Your task to perform on an android device: turn on the 24-hour format for clock Image 0: 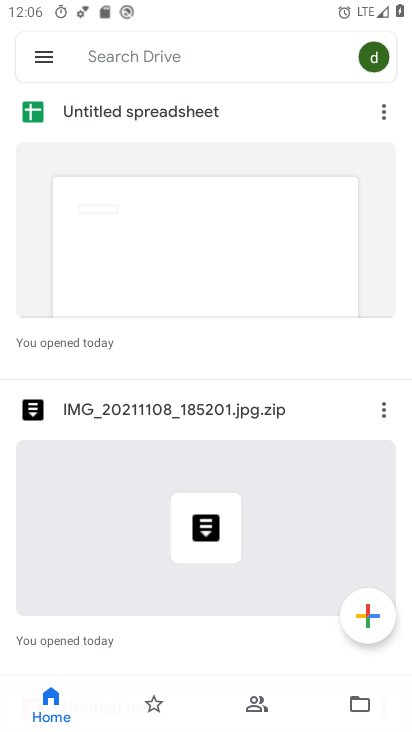
Step 0: press back button
Your task to perform on an android device: turn on the 24-hour format for clock Image 1: 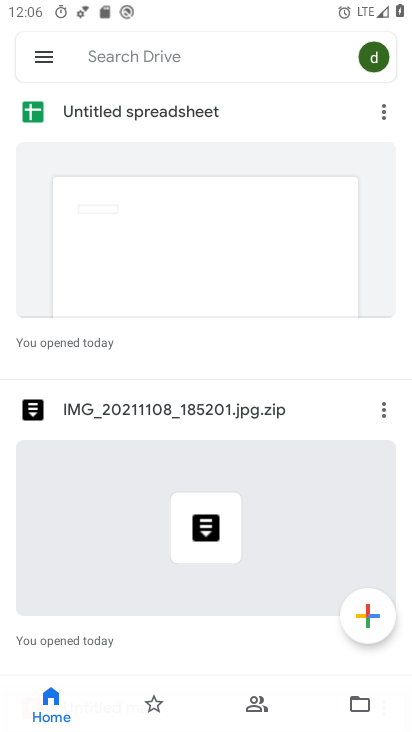
Step 1: press back button
Your task to perform on an android device: turn on the 24-hour format for clock Image 2: 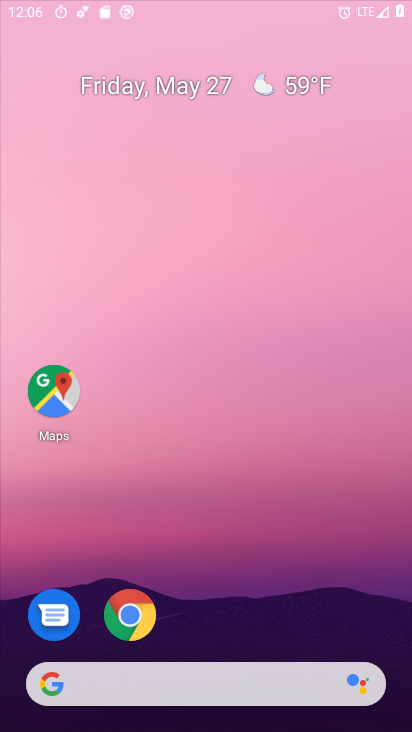
Step 2: press back button
Your task to perform on an android device: turn on the 24-hour format for clock Image 3: 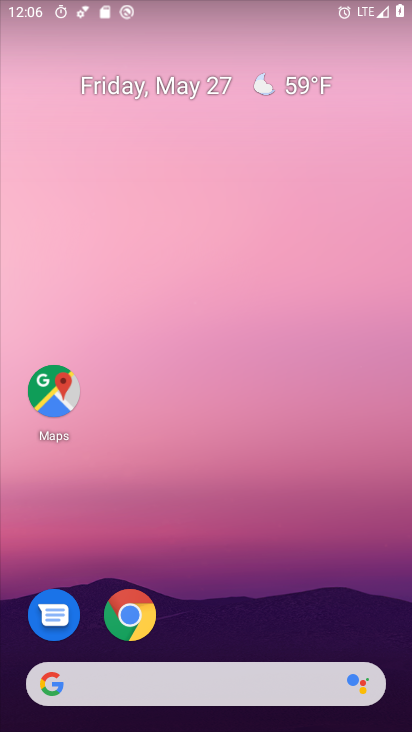
Step 3: drag from (241, 700) to (263, 175)
Your task to perform on an android device: turn on the 24-hour format for clock Image 4: 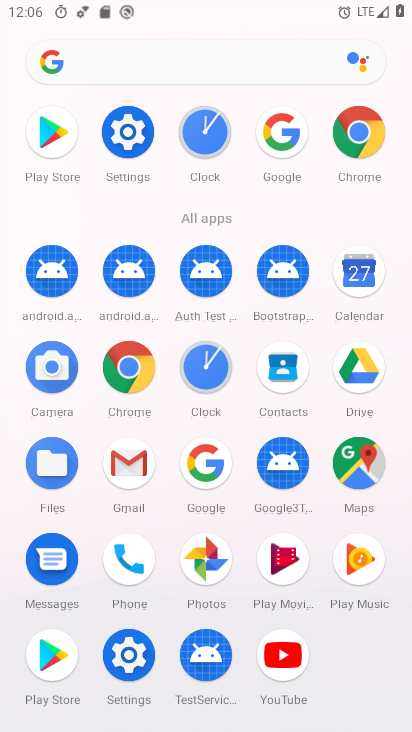
Step 4: click (185, 356)
Your task to perform on an android device: turn on the 24-hour format for clock Image 5: 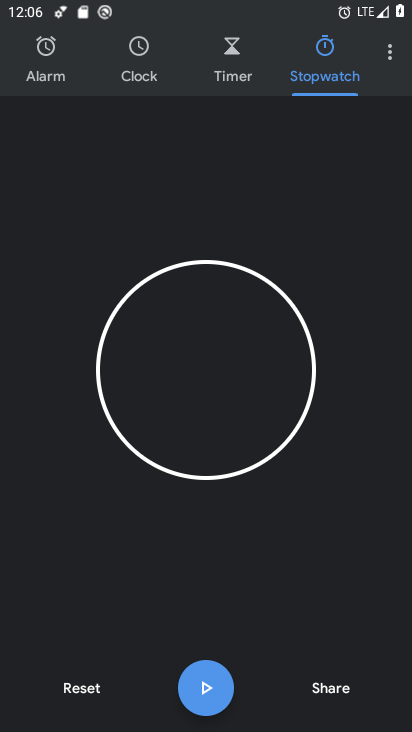
Step 5: click (388, 48)
Your task to perform on an android device: turn on the 24-hour format for clock Image 6: 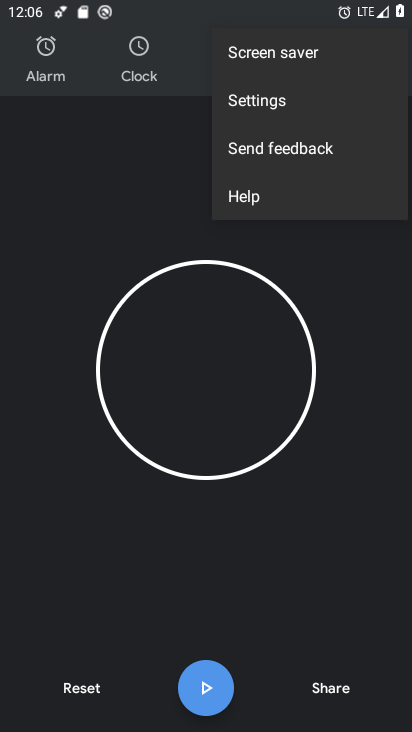
Step 6: click (238, 104)
Your task to perform on an android device: turn on the 24-hour format for clock Image 7: 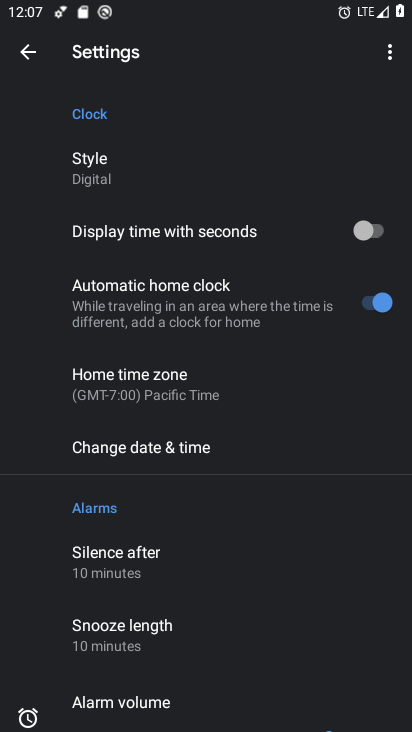
Step 7: click (146, 447)
Your task to perform on an android device: turn on the 24-hour format for clock Image 8: 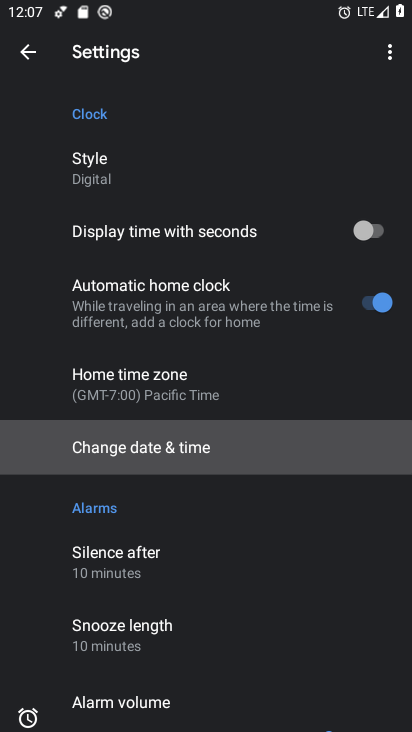
Step 8: click (144, 445)
Your task to perform on an android device: turn on the 24-hour format for clock Image 9: 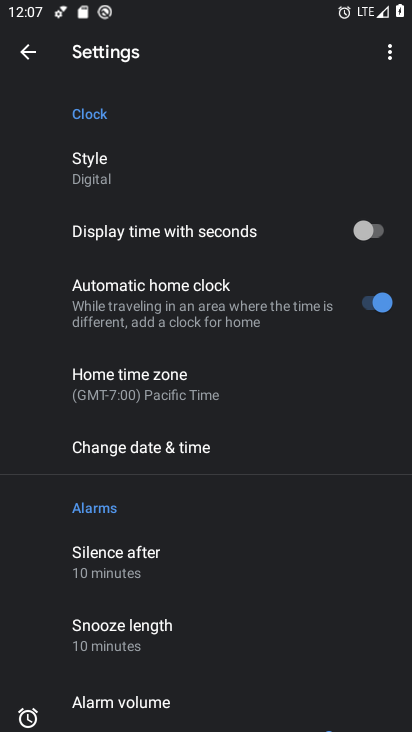
Step 9: click (144, 445)
Your task to perform on an android device: turn on the 24-hour format for clock Image 10: 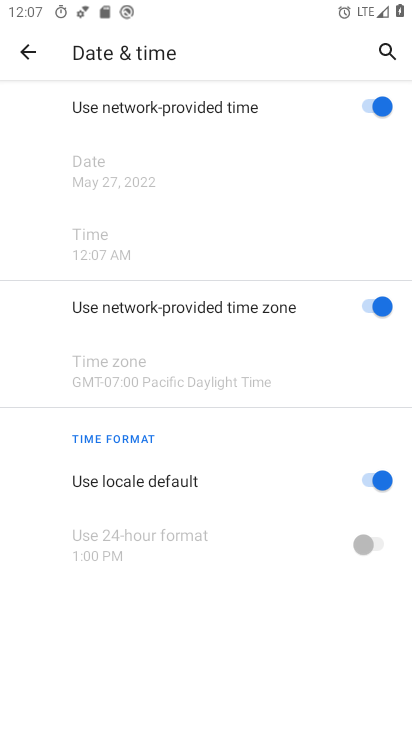
Step 10: click (375, 483)
Your task to perform on an android device: turn on the 24-hour format for clock Image 11: 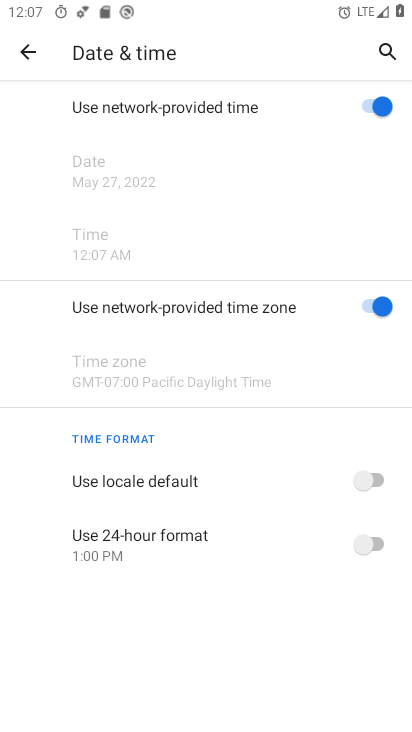
Step 11: click (367, 545)
Your task to perform on an android device: turn on the 24-hour format for clock Image 12: 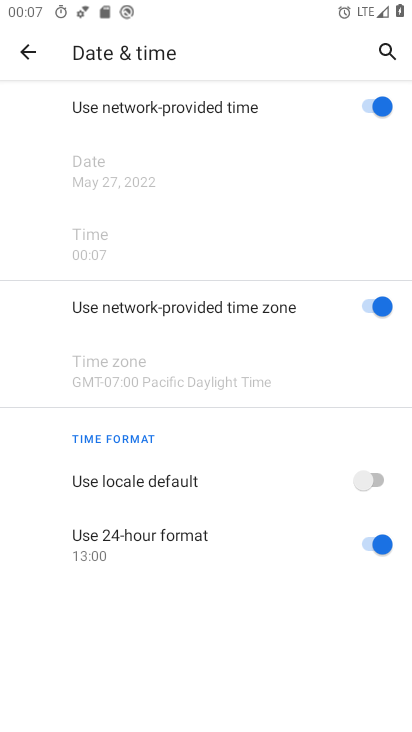
Step 12: task complete